Your task to perform on an android device: add a label to a message in the gmail app Image 0: 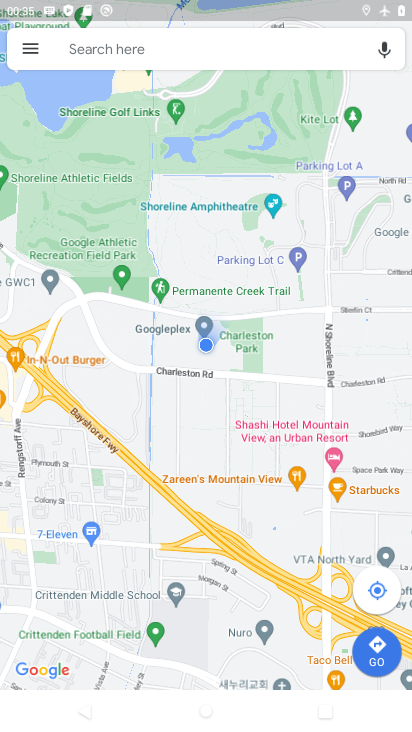
Step 0: press home button
Your task to perform on an android device: add a label to a message in the gmail app Image 1: 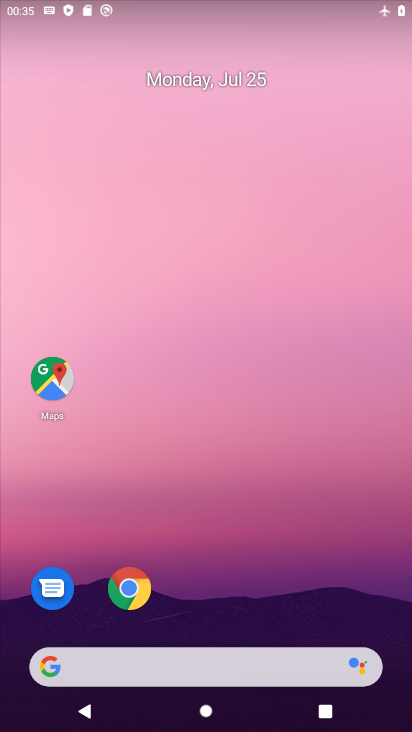
Step 1: drag from (234, 638) to (281, 27)
Your task to perform on an android device: add a label to a message in the gmail app Image 2: 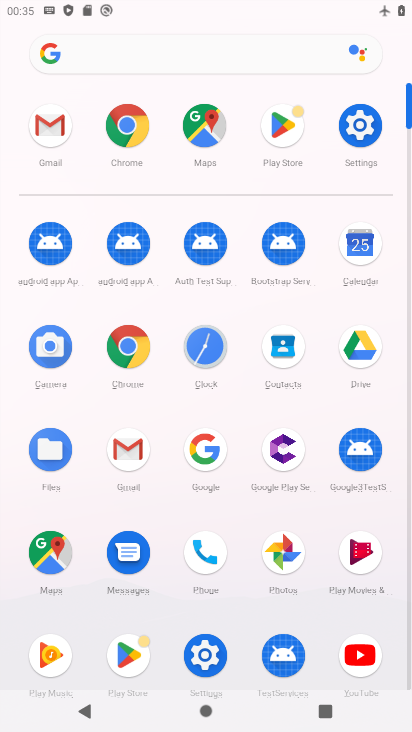
Step 2: click (134, 467)
Your task to perform on an android device: add a label to a message in the gmail app Image 3: 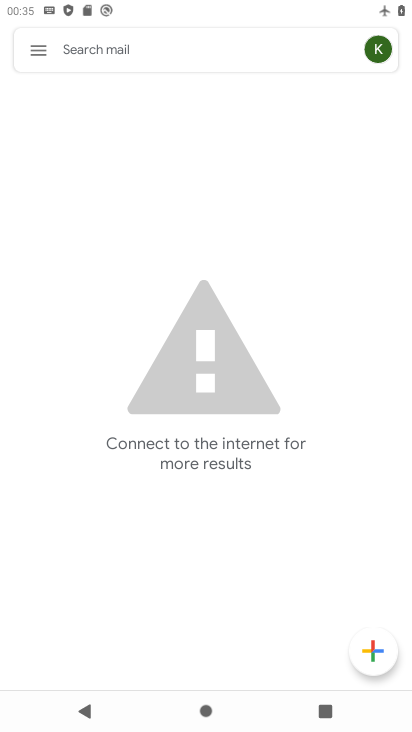
Step 3: task complete